Your task to perform on an android device: add a contact in the contacts app Image 0: 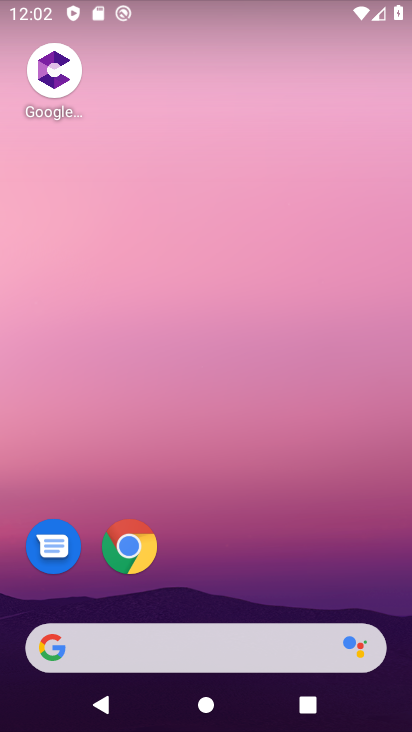
Step 0: drag from (257, 537) to (228, 153)
Your task to perform on an android device: add a contact in the contacts app Image 1: 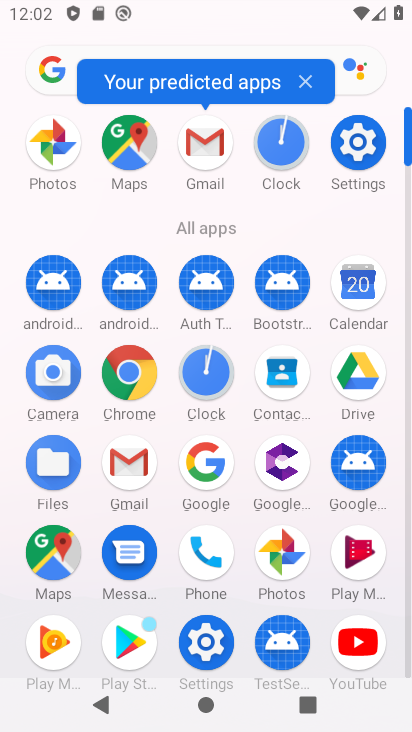
Step 1: click (276, 377)
Your task to perform on an android device: add a contact in the contacts app Image 2: 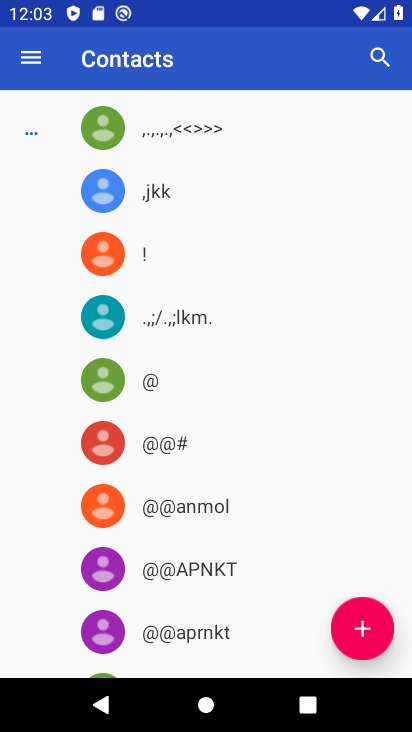
Step 2: click (351, 623)
Your task to perform on an android device: add a contact in the contacts app Image 3: 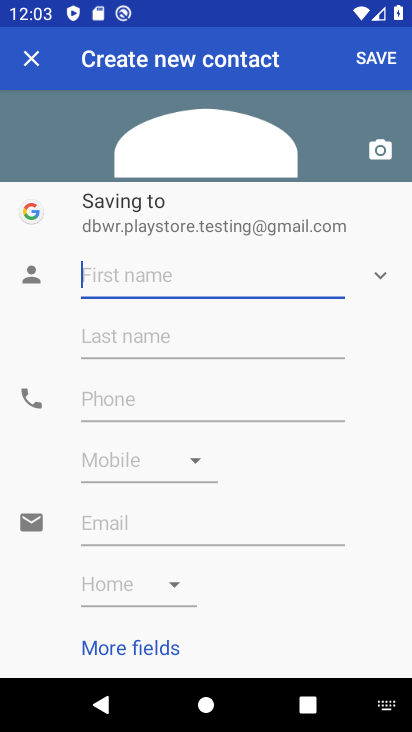
Step 3: type "Jimmi"
Your task to perform on an android device: add a contact in the contacts app Image 4: 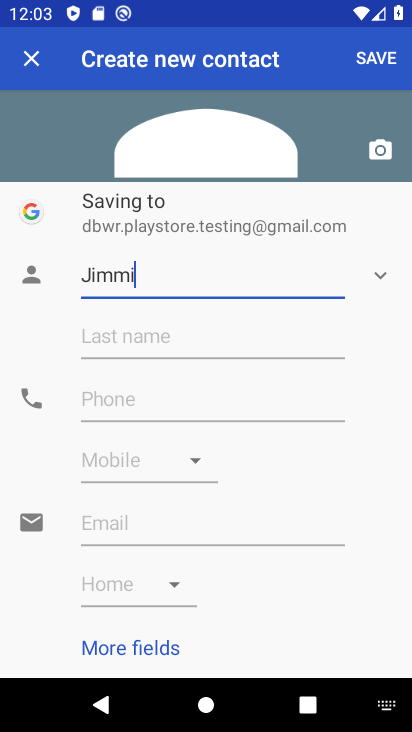
Step 4: click (295, 412)
Your task to perform on an android device: add a contact in the contacts app Image 5: 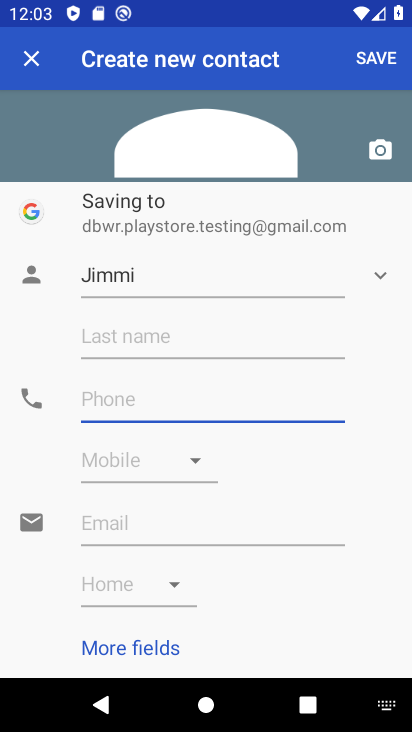
Step 5: type "01122334455"
Your task to perform on an android device: add a contact in the contacts app Image 6: 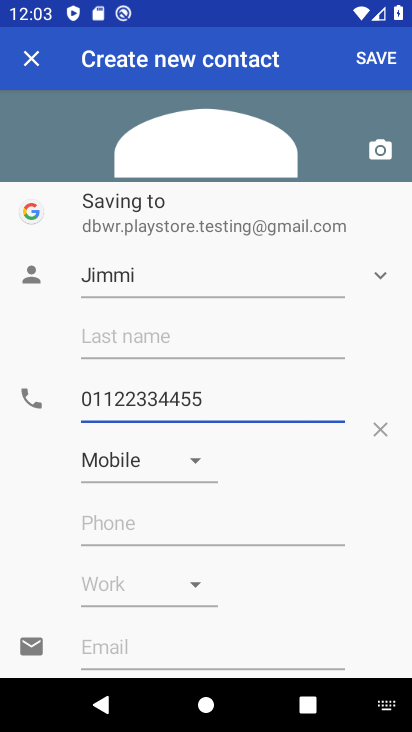
Step 6: click (387, 52)
Your task to perform on an android device: add a contact in the contacts app Image 7: 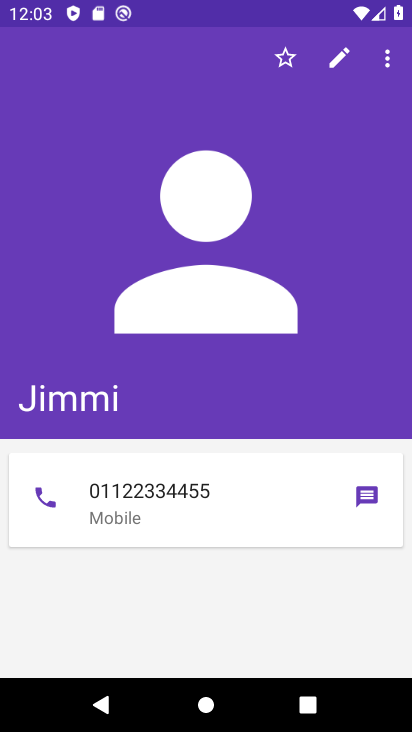
Step 7: task complete